Your task to perform on an android device: Clear the shopping cart on bestbuy. Search for macbook air on bestbuy, select the first entry, add it to the cart, then select checkout. Image 0: 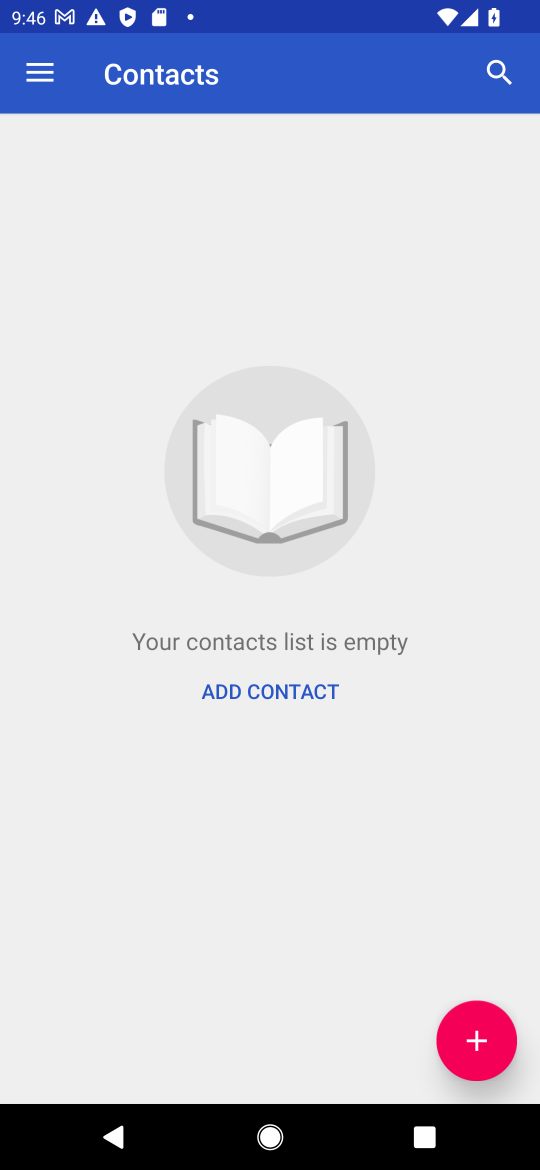
Step 0: press home button
Your task to perform on an android device: Clear the shopping cart on bestbuy. Search for macbook air on bestbuy, select the first entry, add it to the cart, then select checkout. Image 1: 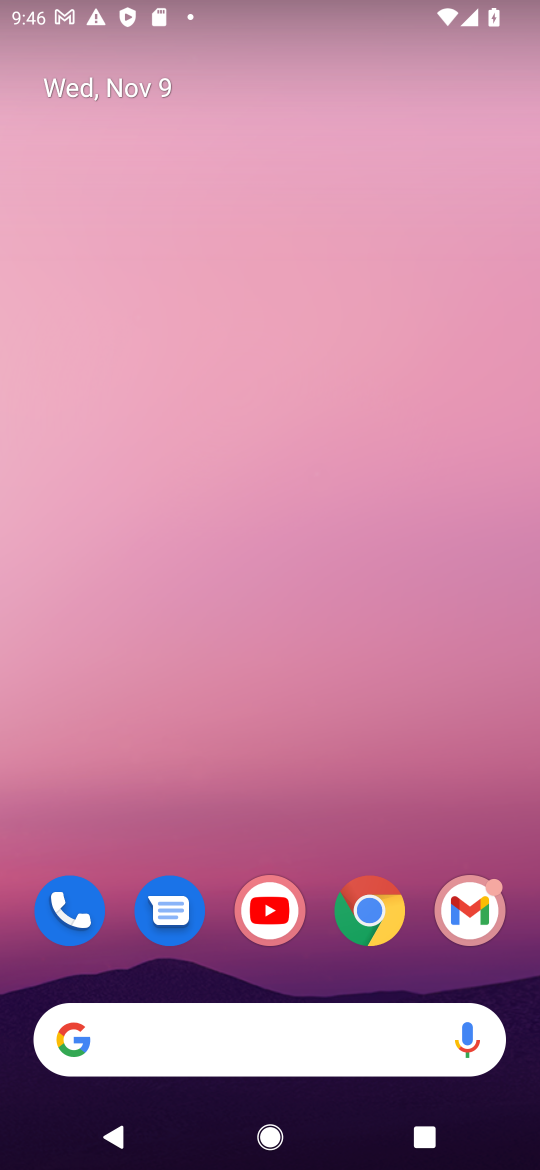
Step 1: click (365, 914)
Your task to perform on an android device: Clear the shopping cart on bestbuy. Search for macbook air on bestbuy, select the first entry, add it to the cart, then select checkout. Image 2: 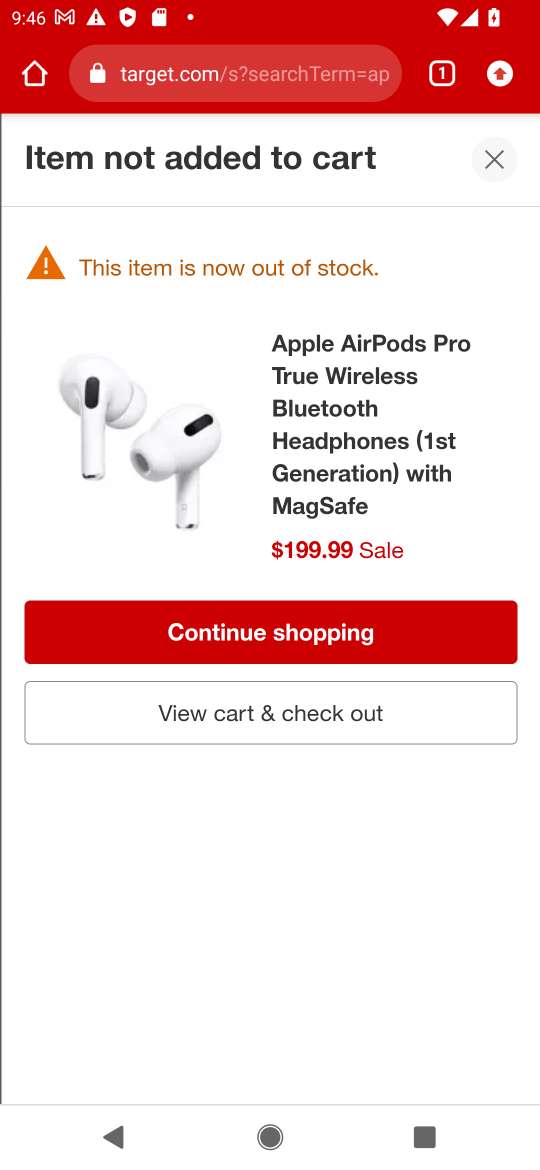
Step 2: click (219, 73)
Your task to perform on an android device: Clear the shopping cart on bestbuy. Search for macbook air on bestbuy, select the first entry, add it to the cart, then select checkout. Image 3: 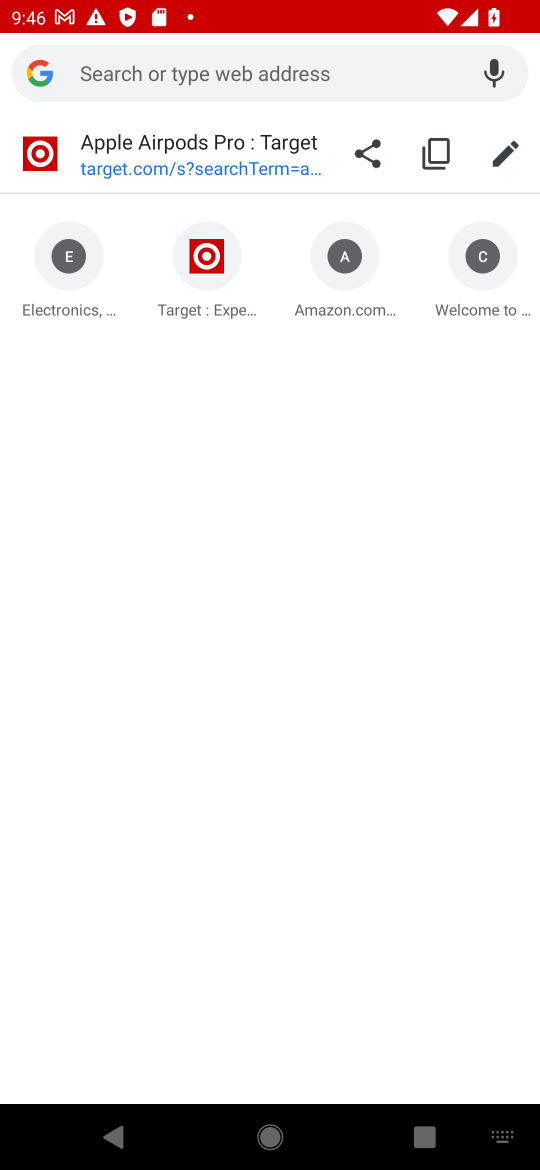
Step 3: type "bestbuy.com"
Your task to perform on an android device: Clear the shopping cart on bestbuy. Search for macbook air on bestbuy, select the first entry, add it to the cart, then select checkout. Image 4: 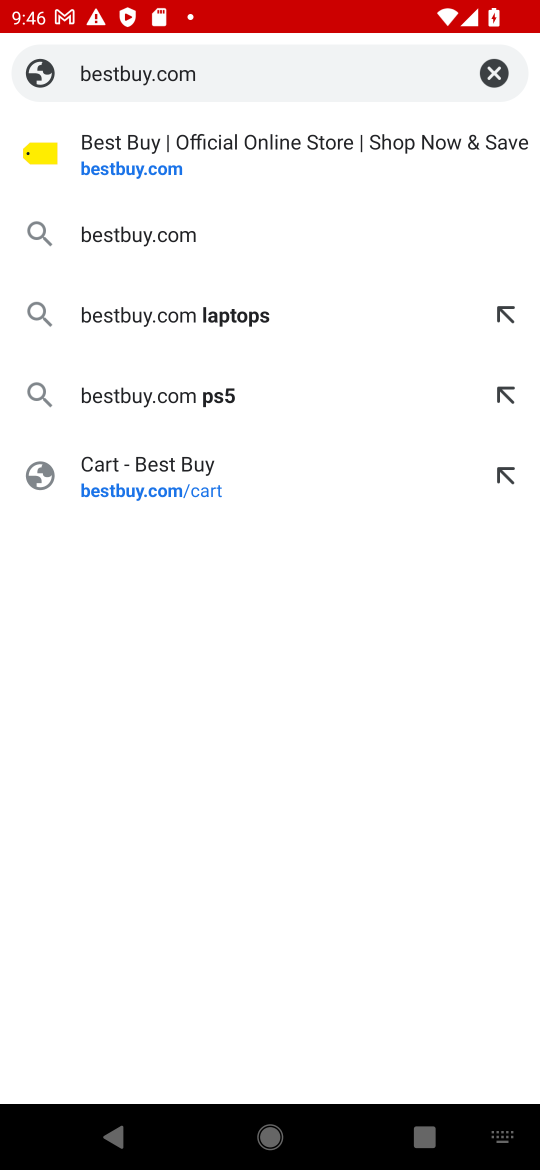
Step 4: click (140, 177)
Your task to perform on an android device: Clear the shopping cart on bestbuy. Search for macbook air on bestbuy, select the first entry, add it to the cart, then select checkout. Image 5: 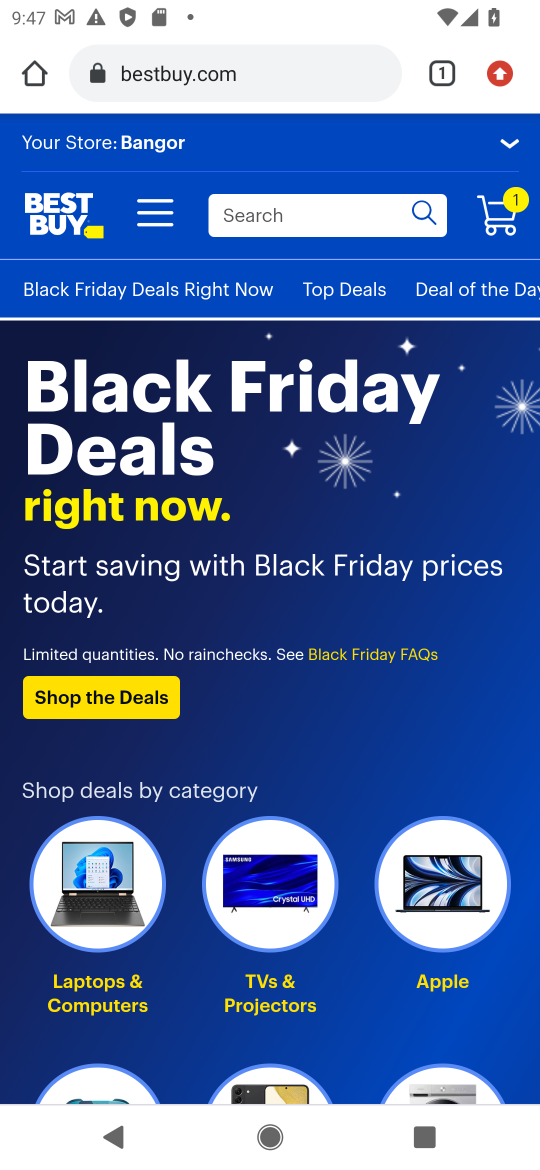
Step 5: click (502, 214)
Your task to perform on an android device: Clear the shopping cart on bestbuy. Search for macbook air on bestbuy, select the first entry, add it to the cart, then select checkout. Image 6: 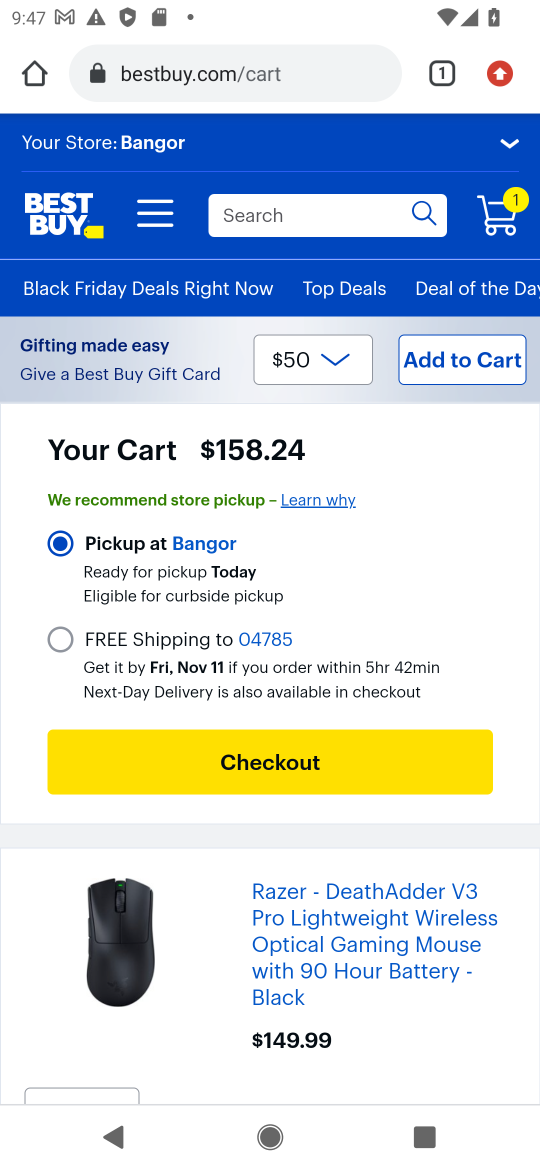
Step 6: drag from (255, 706) to (254, 465)
Your task to perform on an android device: Clear the shopping cart on bestbuy. Search for macbook air on bestbuy, select the first entry, add it to the cart, then select checkout. Image 7: 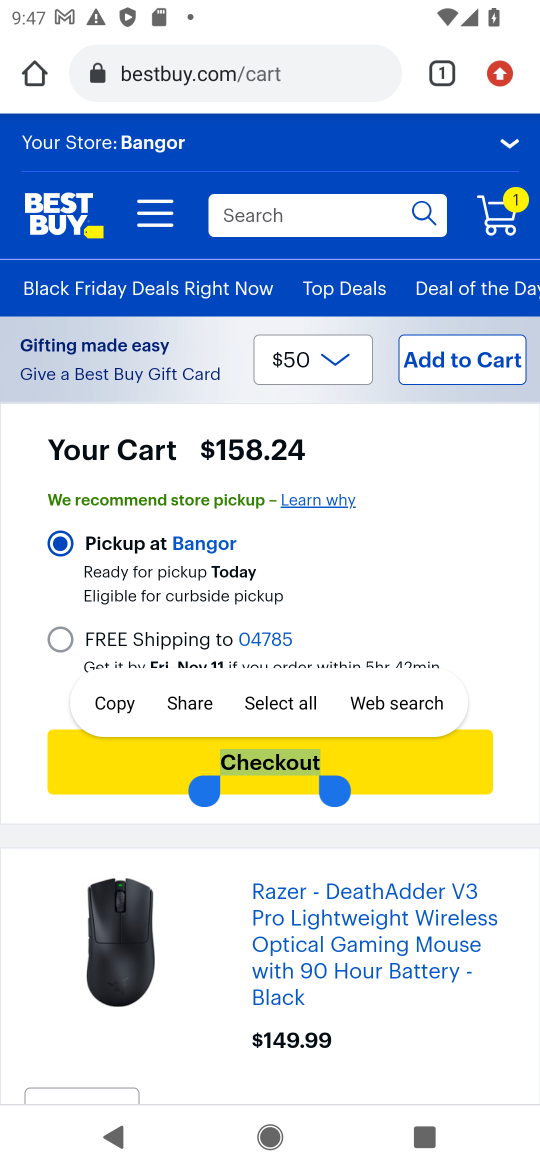
Step 7: drag from (325, 812) to (339, 511)
Your task to perform on an android device: Clear the shopping cart on bestbuy. Search for macbook air on bestbuy, select the first entry, add it to the cart, then select checkout. Image 8: 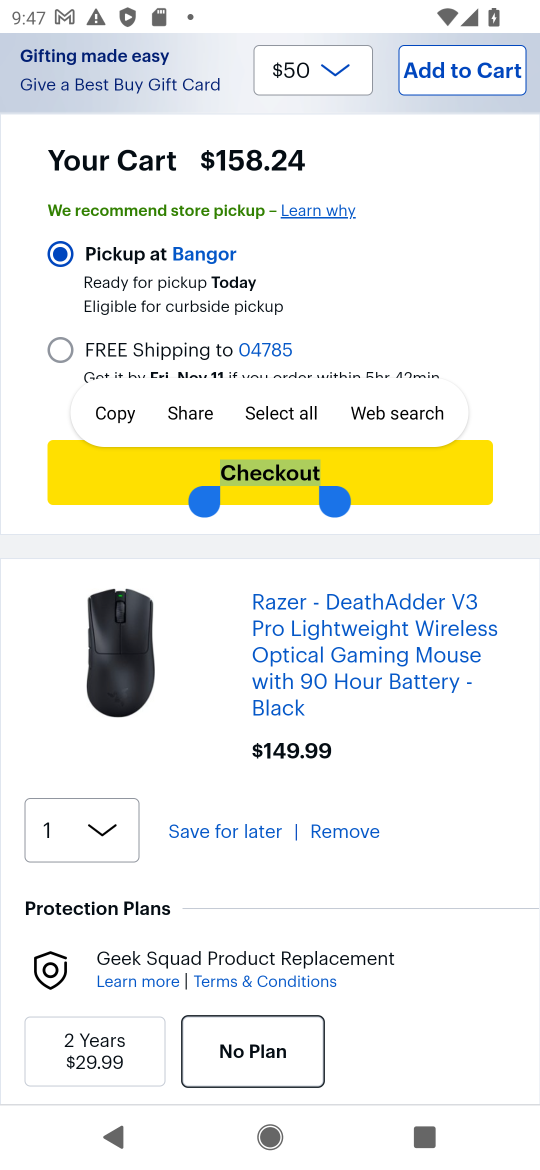
Step 8: click (338, 824)
Your task to perform on an android device: Clear the shopping cart on bestbuy. Search for macbook air on bestbuy, select the first entry, add it to the cart, then select checkout. Image 9: 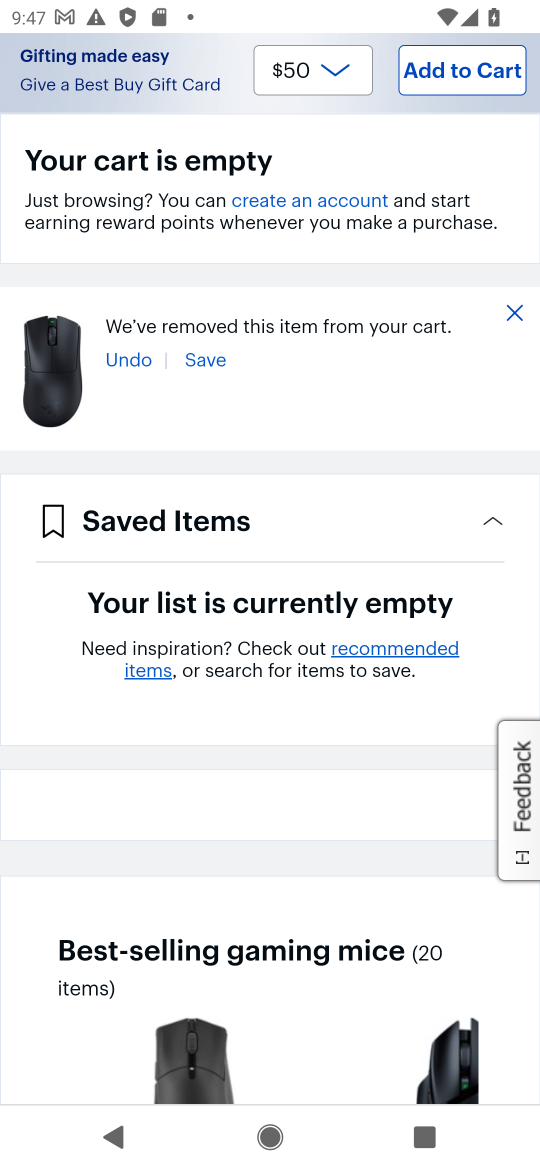
Step 9: drag from (435, 277) to (456, 706)
Your task to perform on an android device: Clear the shopping cart on bestbuy. Search for macbook air on bestbuy, select the first entry, add it to the cart, then select checkout. Image 10: 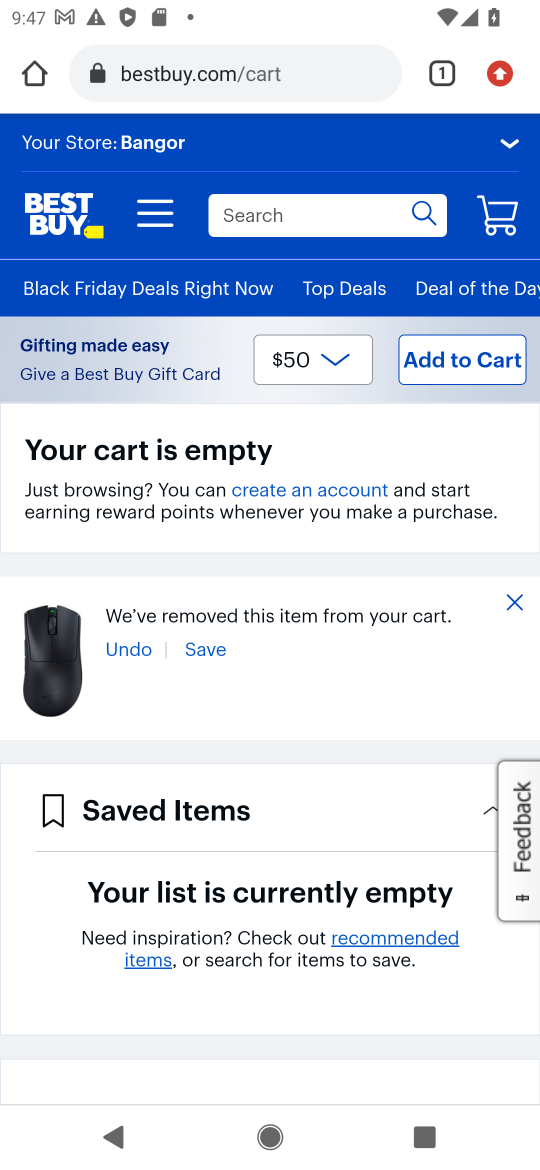
Step 10: click (371, 212)
Your task to perform on an android device: Clear the shopping cart on bestbuy. Search for macbook air on bestbuy, select the first entry, add it to the cart, then select checkout. Image 11: 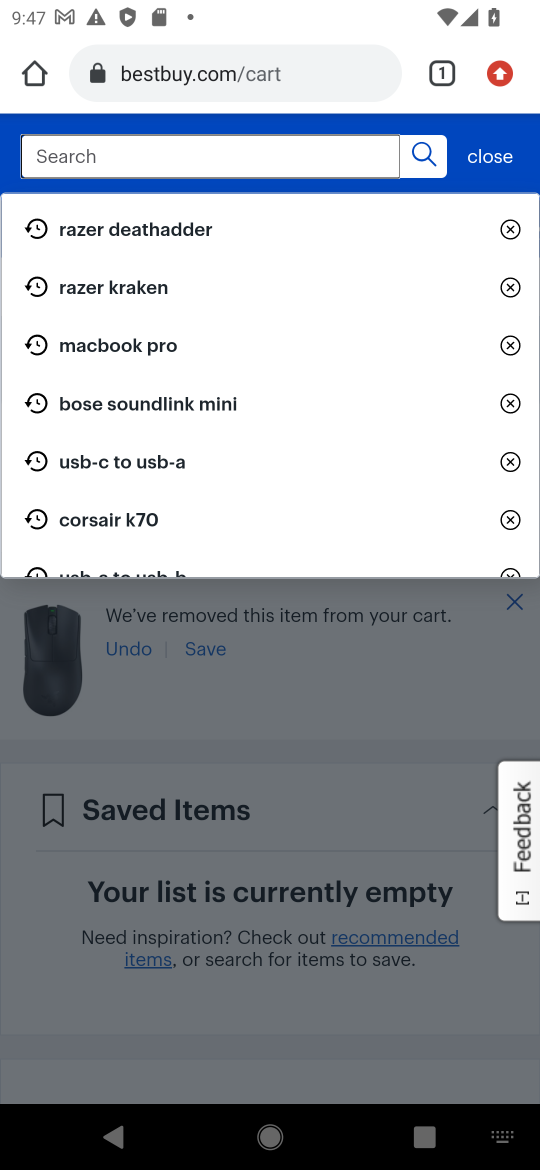
Step 11: type "macbook air "
Your task to perform on an android device: Clear the shopping cart on bestbuy. Search for macbook air on bestbuy, select the first entry, add it to the cart, then select checkout. Image 12: 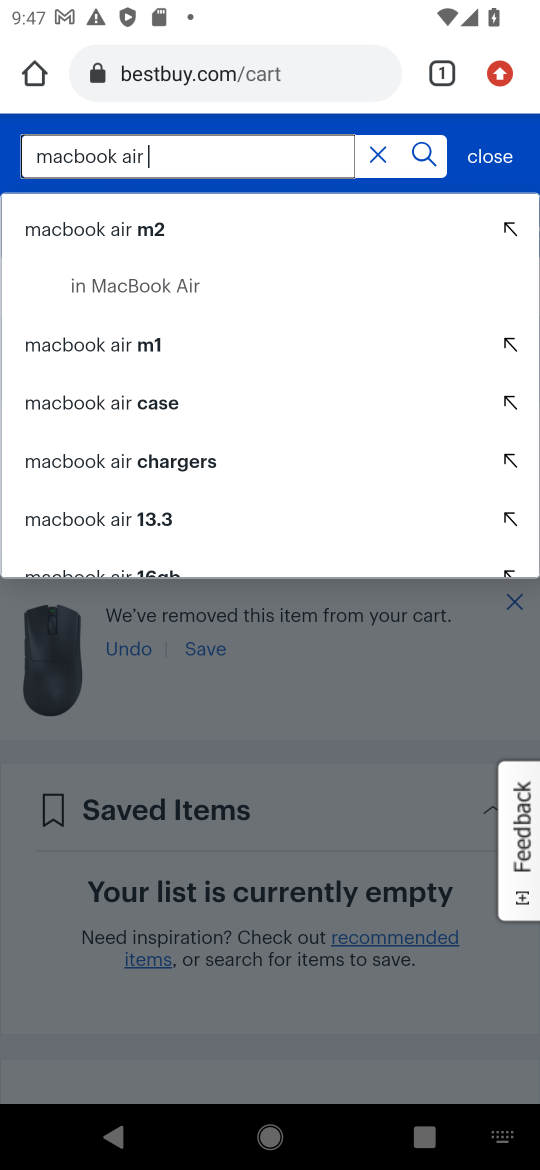
Step 12: click (424, 155)
Your task to perform on an android device: Clear the shopping cart on bestbuy. Search for macbook air on bestbuy, select the first entry, add it to the cart, then select checkout. Image 13: 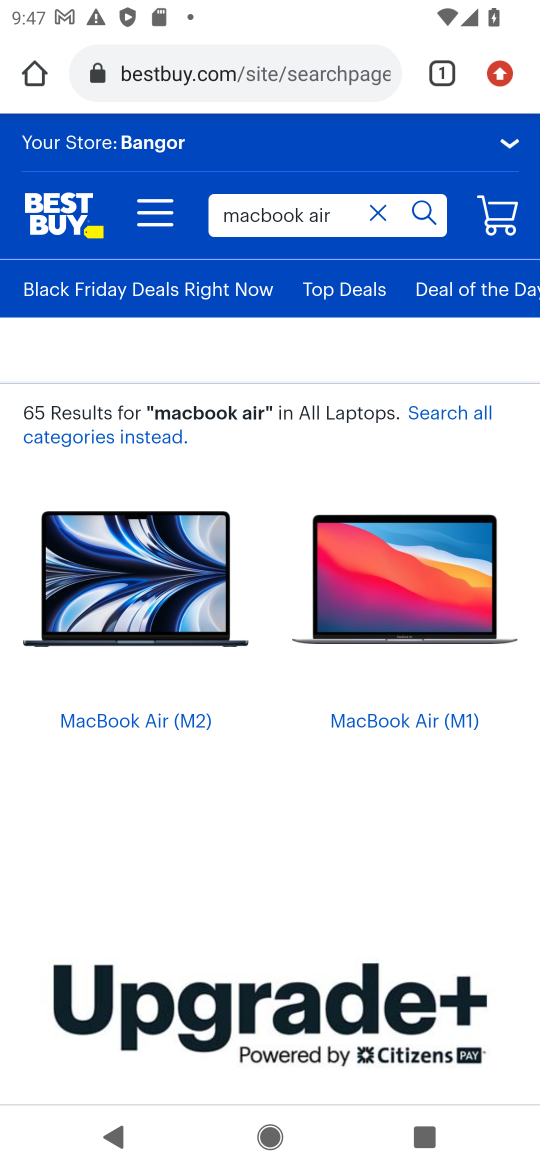
Step 13: drag from (341, 691) to (320, 283)
Your task to perform on an android device: Clear the shopping cart on bestbuy. Search for macbook air on bestbuy, select the first entry, add it to the cart, then select checkout. Image 14: 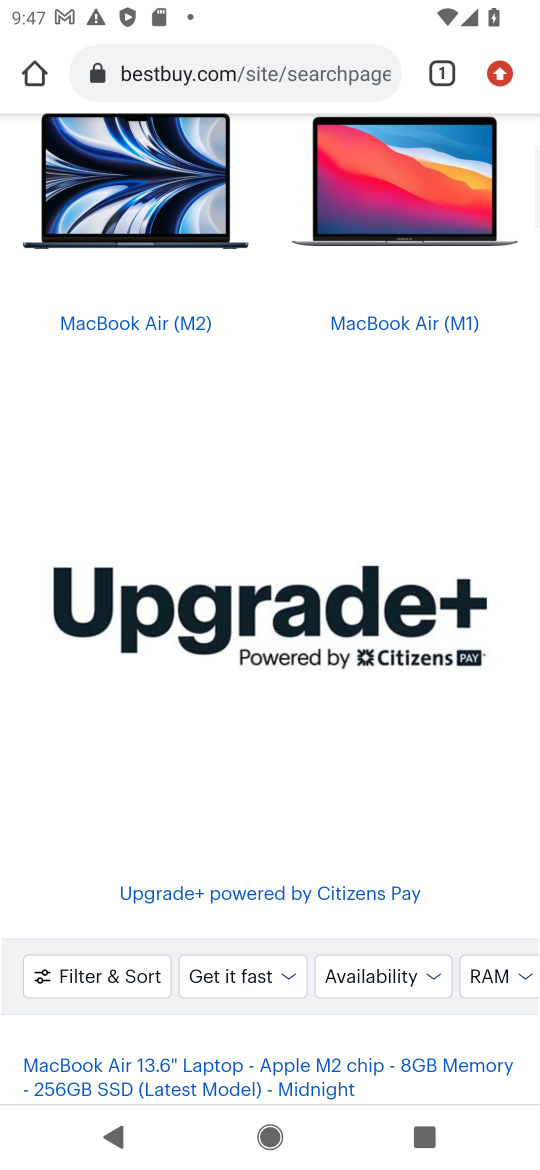
Step 14: drag from (255, 811) to (267, 360)
Your task to perform on an android device: Clear the shopping cart on bestbuy. Search for macbook air on bestbuy, select the first entry, add it to the cart, then select checkout. Image 15: 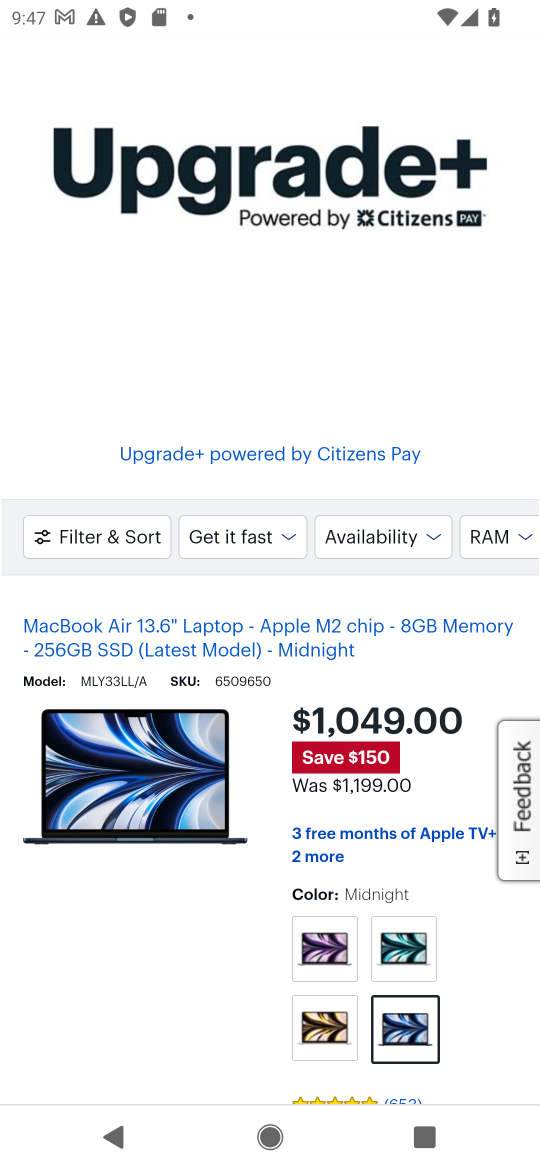
Step 15: drag from (188, 742) to (200, 505)
Your task to perform on an android device: Clear the shopping cart on bestbuy. Search for macbook air on bestbuy, select the first entry, add it to the cart, then select checkout. Image 16: 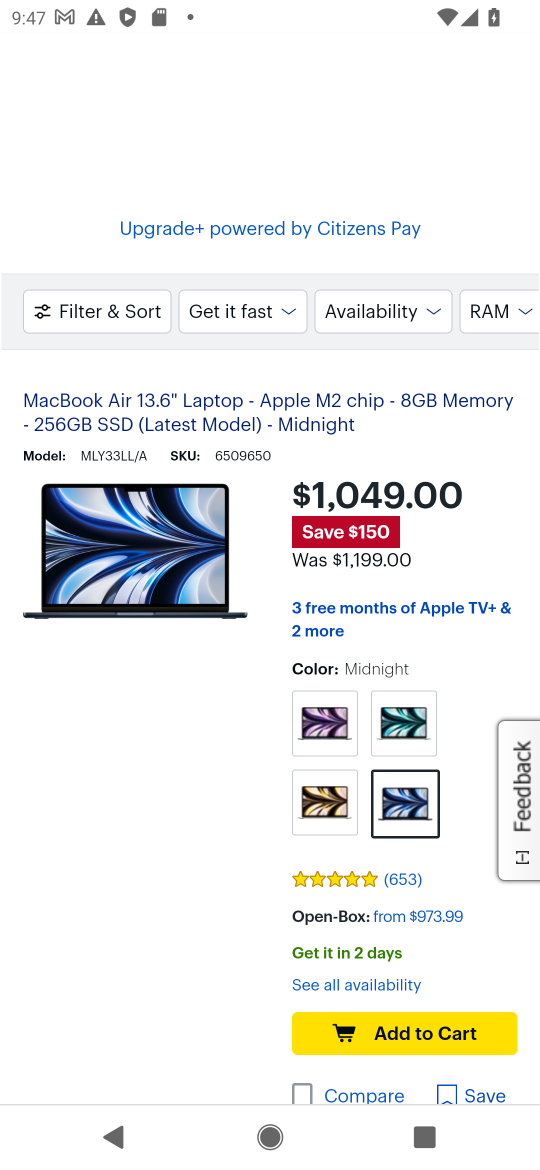
Step 16: click (386, 1022)
Your task to perform on an android device: Clear the shopping cart on bestbuy. Search for macbook air on bestbuy, select the first entry, add it to the cart, then select checkout. Image 17: 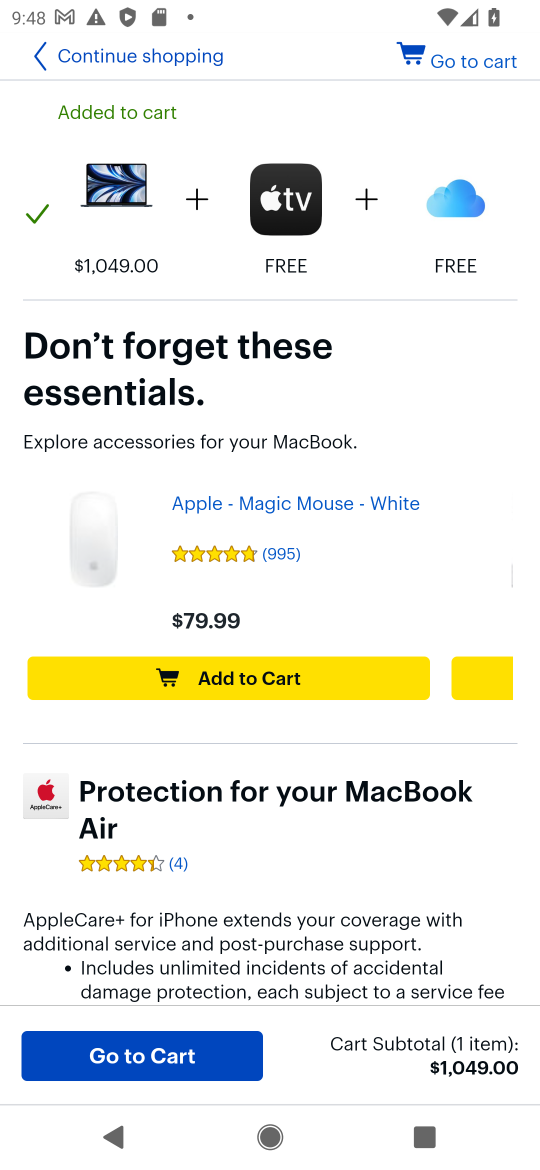
Step 17: click (446, 57)
Your task to perform on an android device: Clear the shopping cart on bestbuy. Search for macbook air on bestbuy, select the first entry, add it to the cart, then select checkout. Image 18: 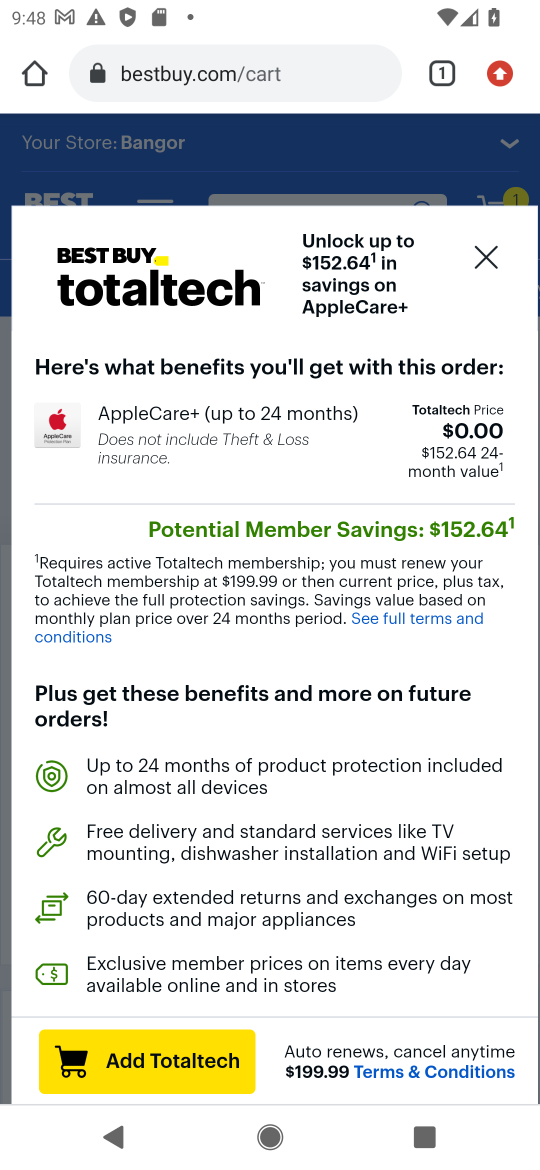
Step 18: click (490, 255)
Your task to perform on an android device: Clear the shopping cart on bestbuy. Search for macbook air on bestbuy, select the first entry, add it to the cart, then select checkout. Image 19: 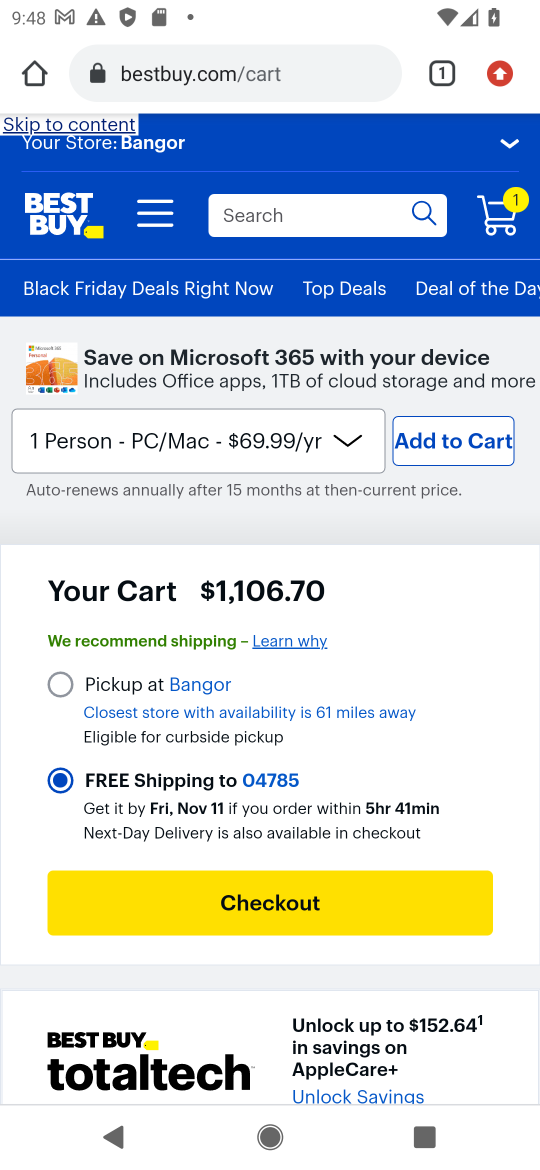
Step 19: click (283, 918)
Your task to perform on an android device: Clear the shopping cart on bestbuy. Search for macbook air on bestbuy, select the first entry, add it to the cart, then select checkout. Image 20: 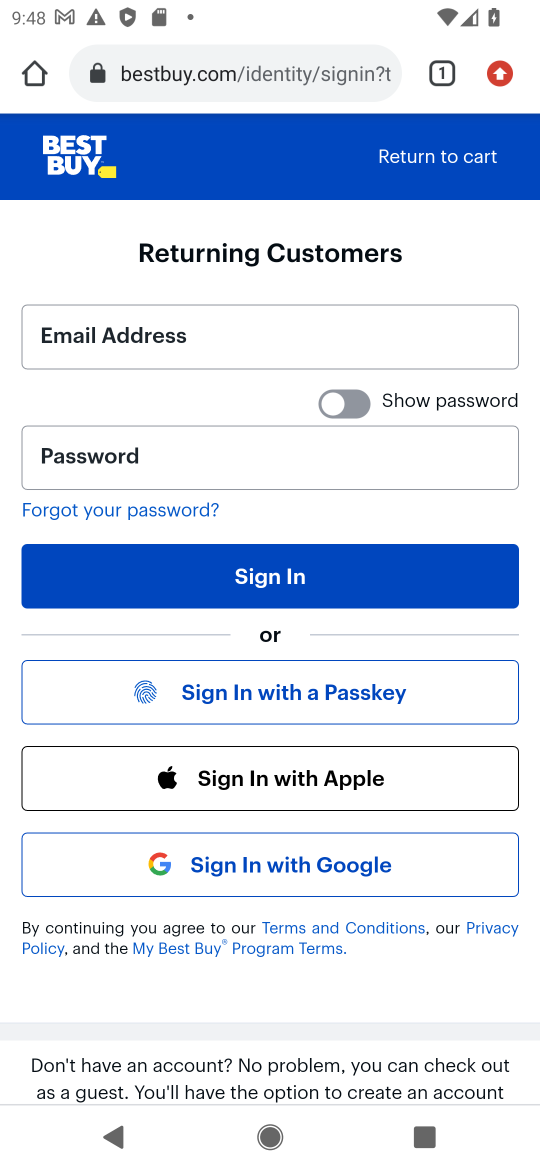
Step 20: task complete